Your task to perform on an android device: What's the weather today? Image 0: 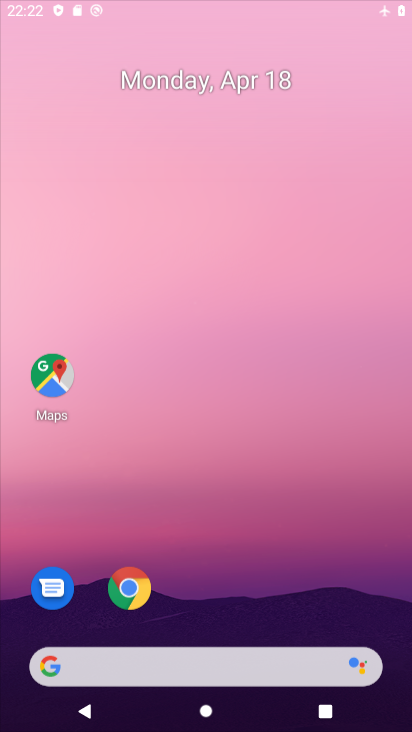
Step 0: drag from (208, 372) to (320, 23)
Your task to perform on an android device: What's the weather today? Image 1: 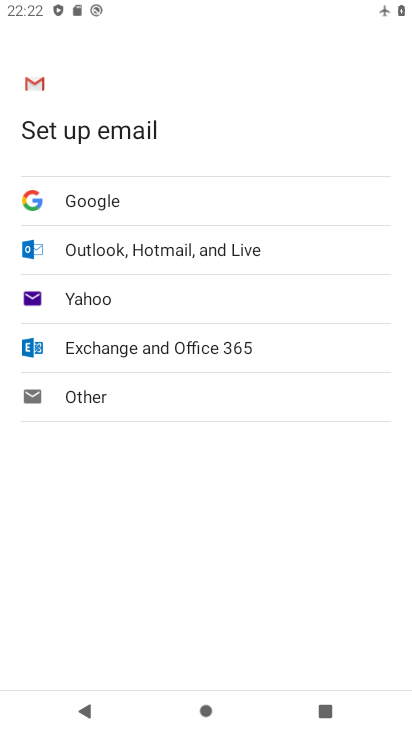
Step 1: press back button
Your task to perform on an android device: What's the weather today? Image 2: 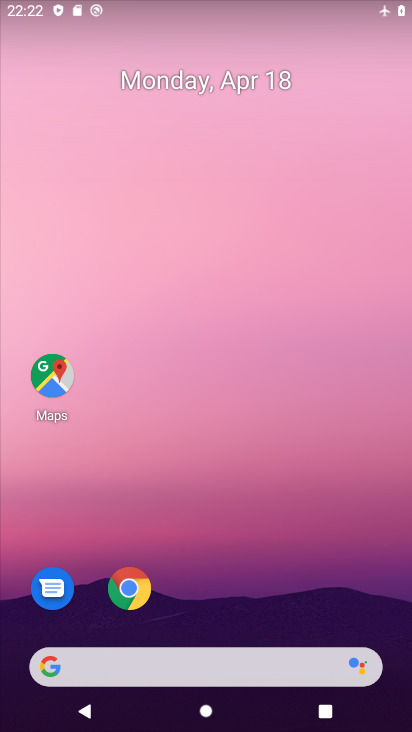
Step 2: drag from (279, 545) to (377, 173)
Your task to perform on an android device: What's the weather today? Image 3: 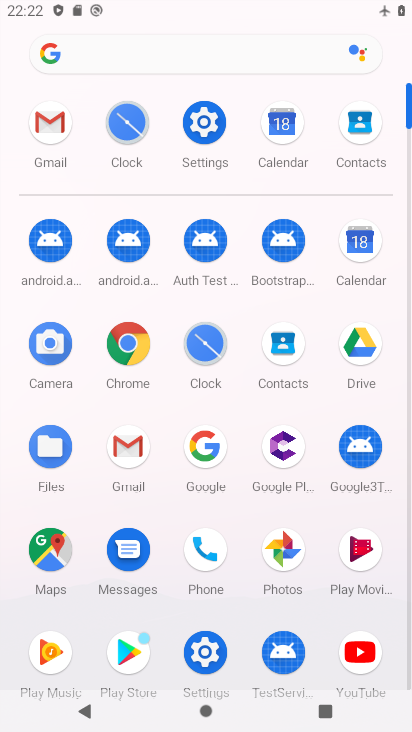
Step 3: click (206, 452)
Your task to perform on an android device: What's the weather today? Image 4: 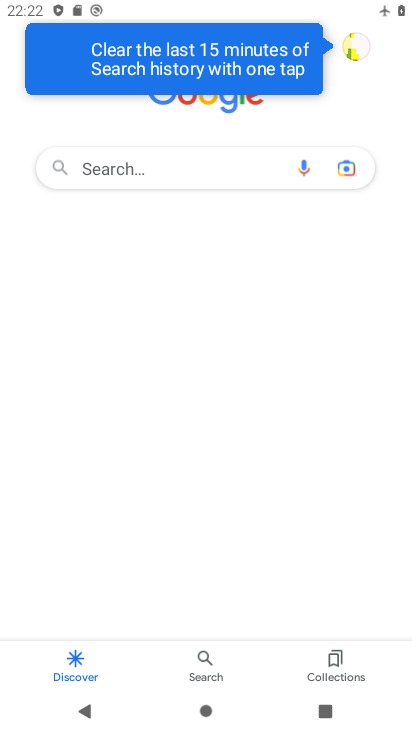
Step 4: click (179, 165)
Your task to perform on an android device: What's the weather today? Image 5: 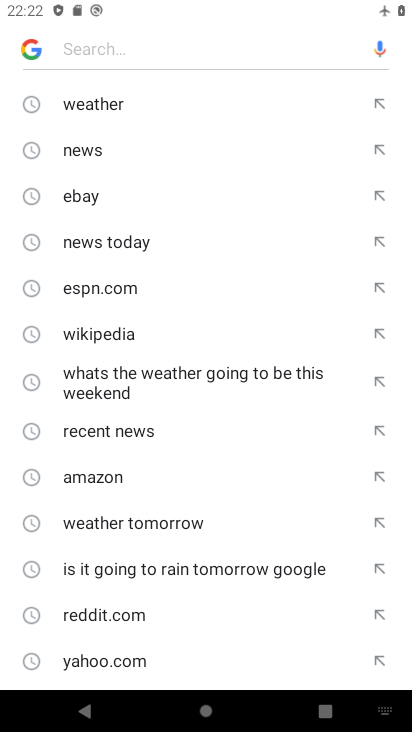
Step 5: type "what's the weather today"
Your task to perform on an android device: What's the weather today? Image 6: 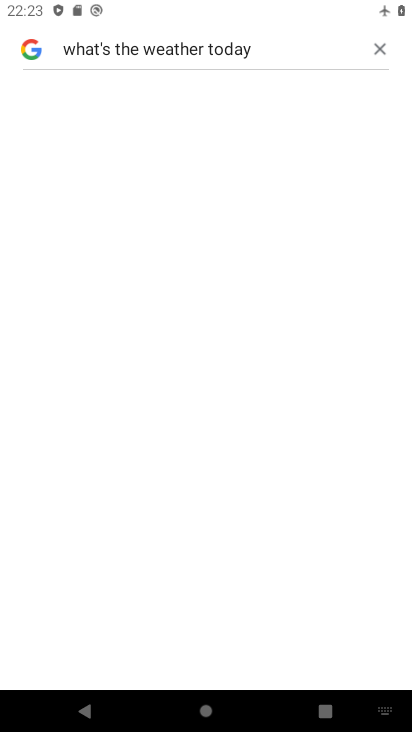
Step 6: task complete